Your task to perform on an android device: turn off notifications settings in the gmail app Image 0: 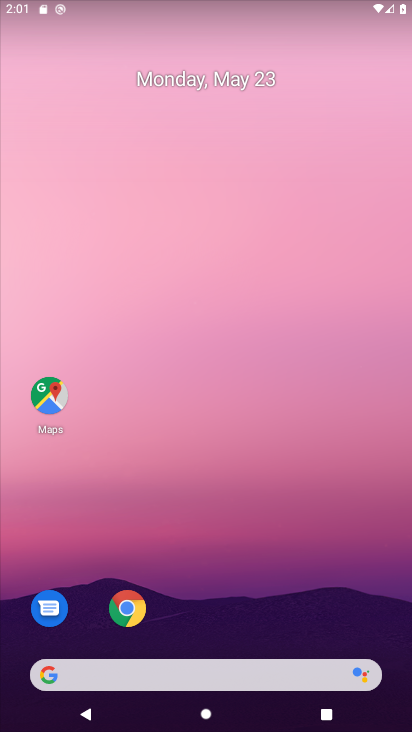
Step 0: drag from (219, 626) to (130, 4)
Your task to perform on an android device: turn off notifications settings in the gmail app Image 1: 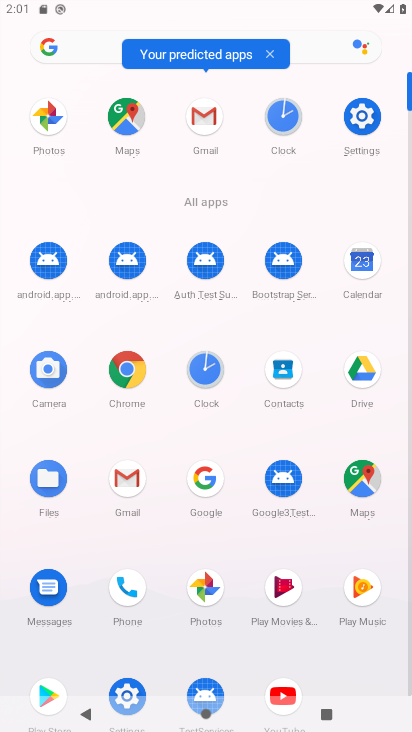
Step 1: click (124, 491)
Your task to perform on an android device: turn off notifications settings in the gmail app Image 2: 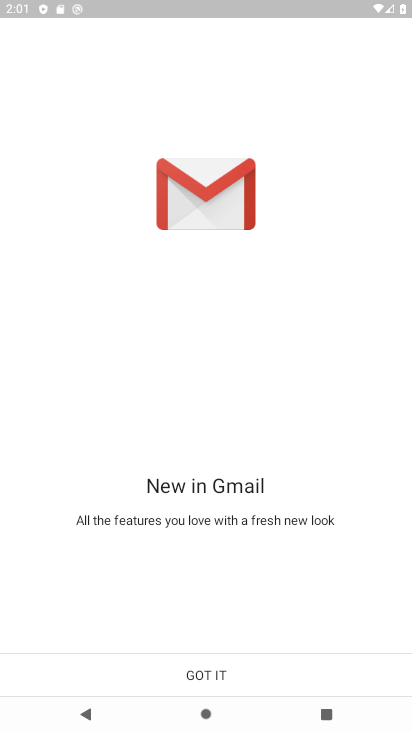
Step 2: click (203, 661)
Your task to perform on an android device: turn off notifications settings in the gmail app Image 3: 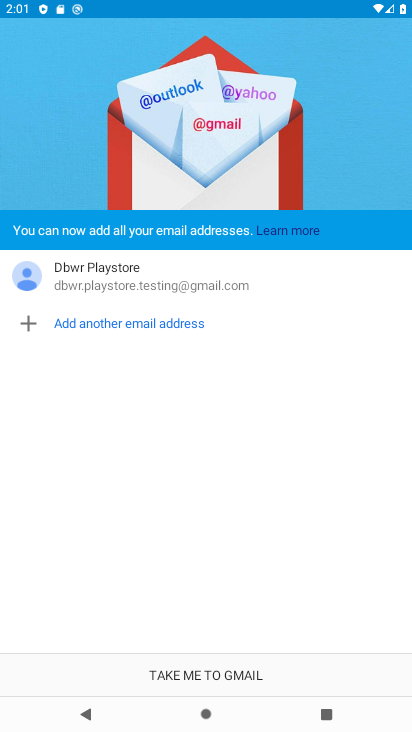
Step 3: click (207, 681)
Your task to perform on an android device: turn off notifications settings in the gmail app Image 4: 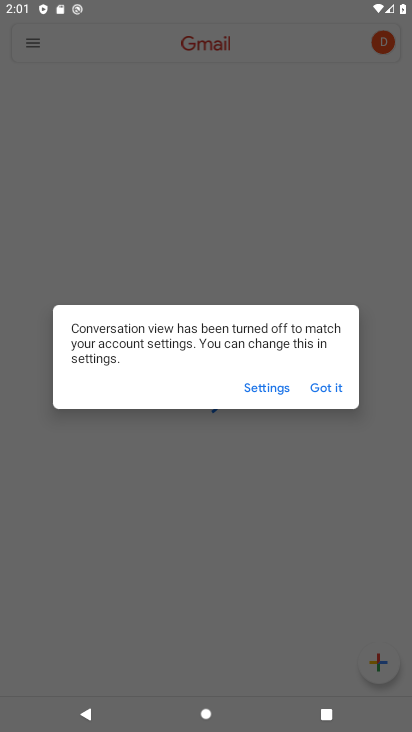
Step 4: click (328, 384)
Your task to perform on an android device: turn off notifications settings in the gmail app Image 5: 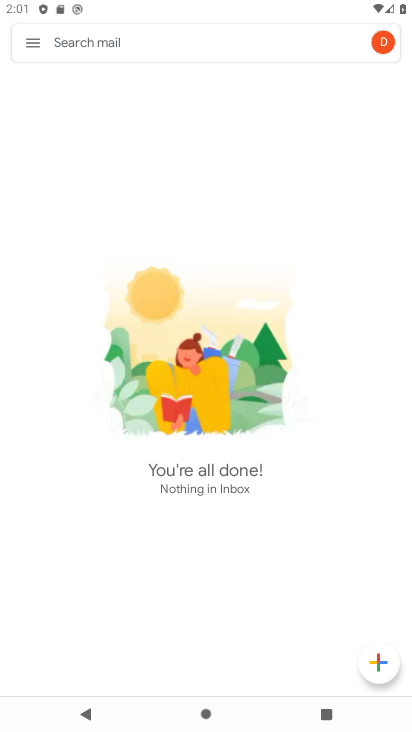
Step 5: click (26, 27)
Your task to perform on an android device: turn off notifications settings in the gmail app Image 6: 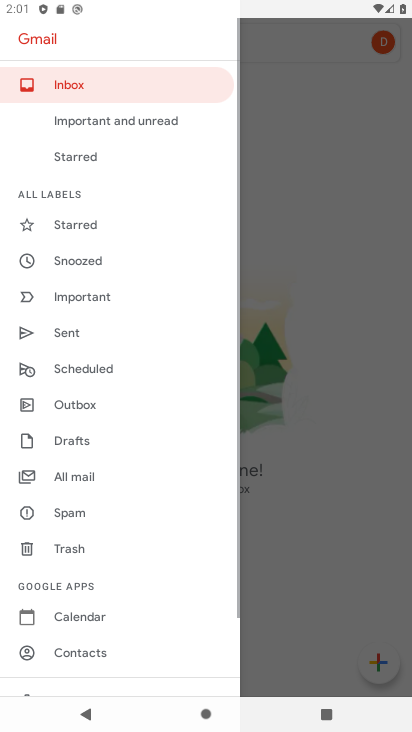
Step 6: drag from (128, 621) to (80, 228)
Your task to perform on an android device: turn off notifications settings in the gmail app Image 7: 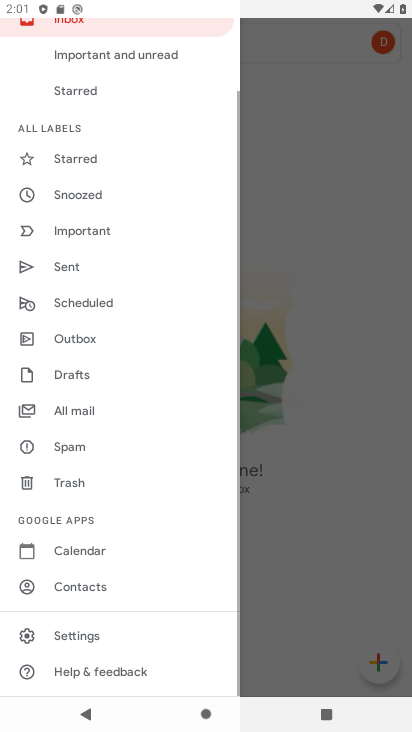
Step 7: click (81, 639)
Your task to perform on an android device: turn off notifications settings in the gmail app Image 8: 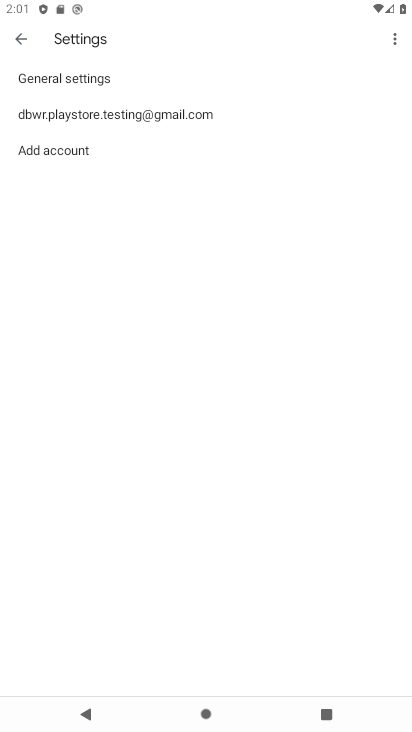
Step 8: click (55, 78)
Your task to perform on an android device: turn off notifications settings in the gmail app Image 9: 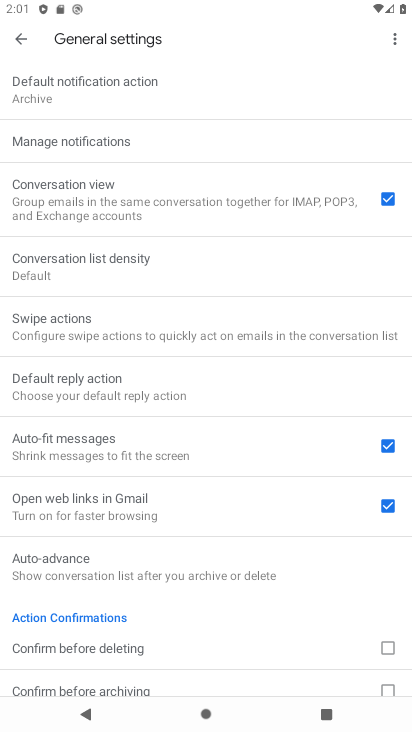
Step 9: click (63, 90)
Your task to perform on an android device: turn off notifications settings in the gmail app Image 10: 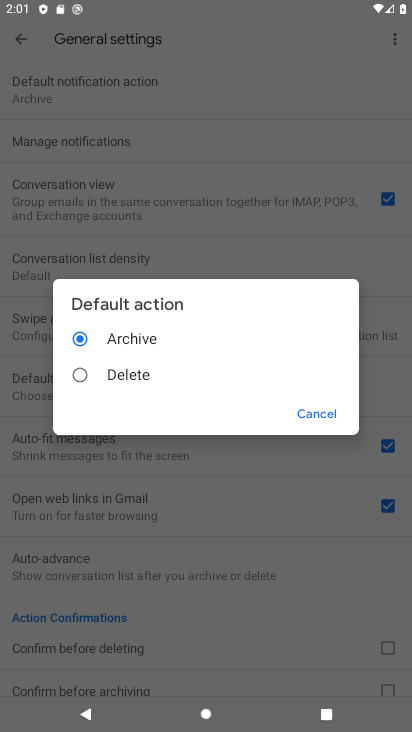
Step 10: click (307, 397)
Your task to perform on an android device: turn off notifications settings in the gmail app Image 11: 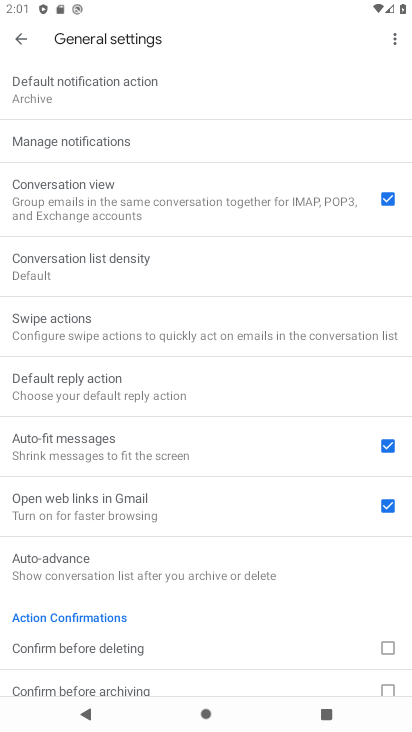
Step 11: click (53, 133)
Your task to perform on an android device: turn off notifications settings in the gmail app Image 12: 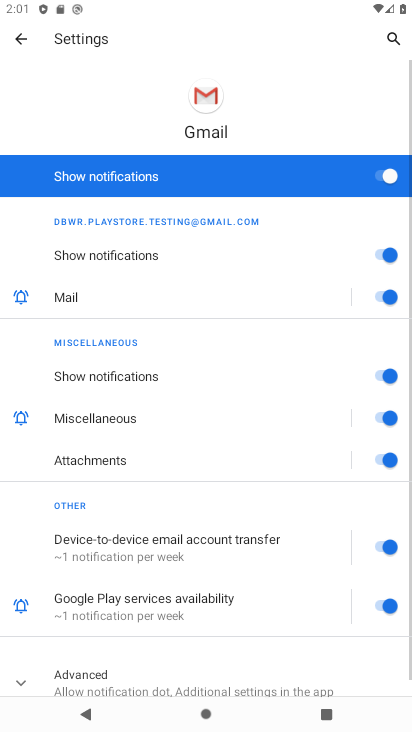
Step 12: click (368, 180)
Your task to perform on an android device: turn off notifications settings in the gmail app Image 13: 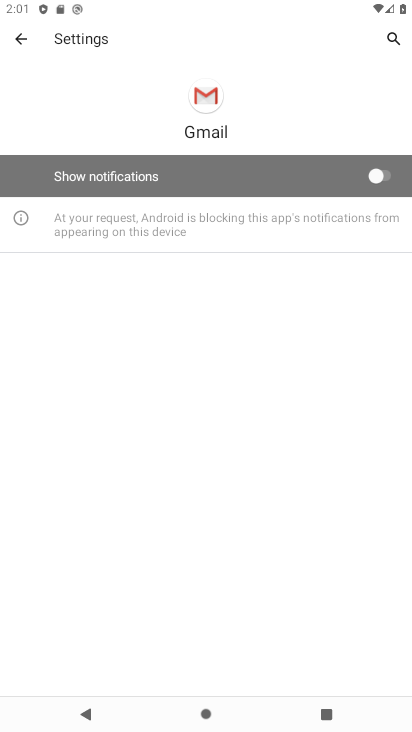
Step 13: task complete